Your task to perform on an android device: What's on my calendar today? Image 0: 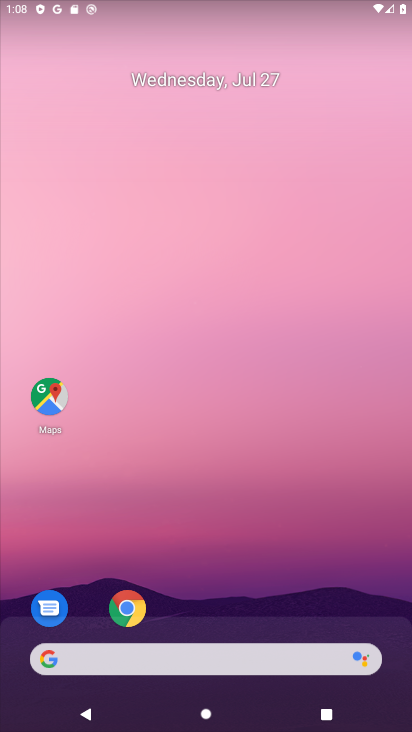
Step 0: drag from (268, 626) to (242, 166)
Your task to perform on an android device: What's on my calendar today? Image 1: 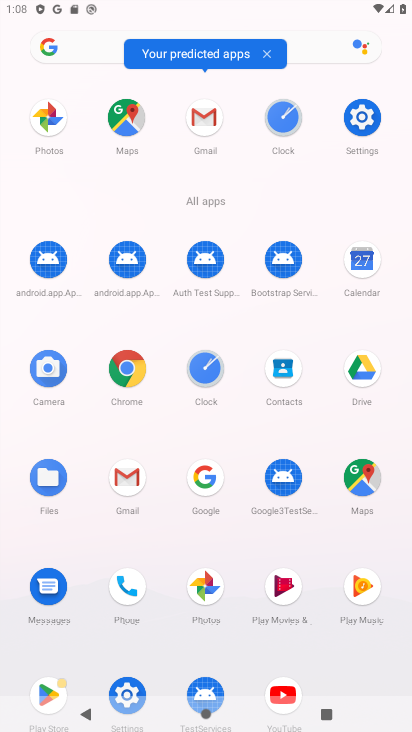
Step 1: click (364, 273)
Your task to perform on an android device: What's on my calendar today? Image 2: 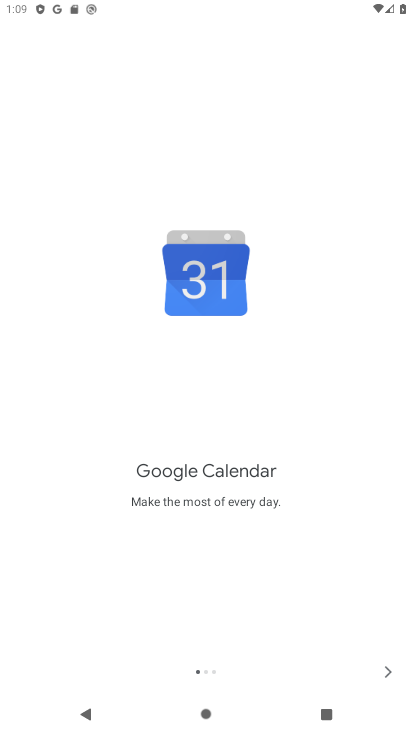
Step 2: click (378, 667)
Your task to perform on an android device: What's on my calendar today? Image 3: 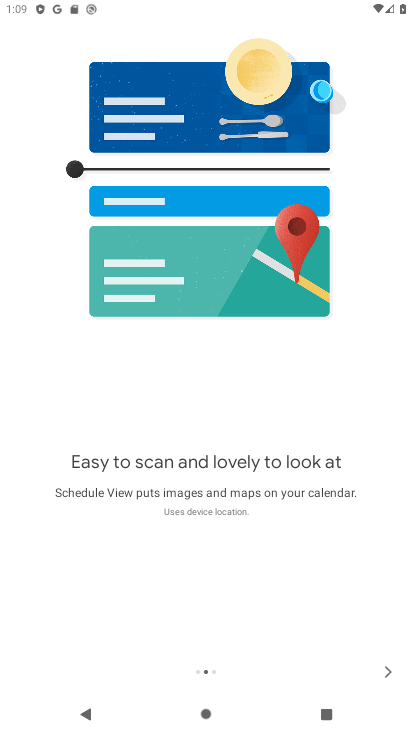
Step 3: click (378, 667)
Your task to perform on an android device: What's on my calendar today? Image 4: 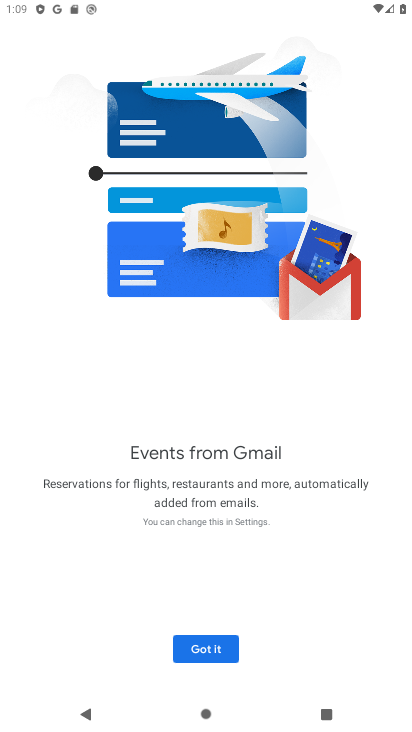
Step 4: click (188, 652)
Your task to perform on an android device: What's on my calendar today? Image 5: 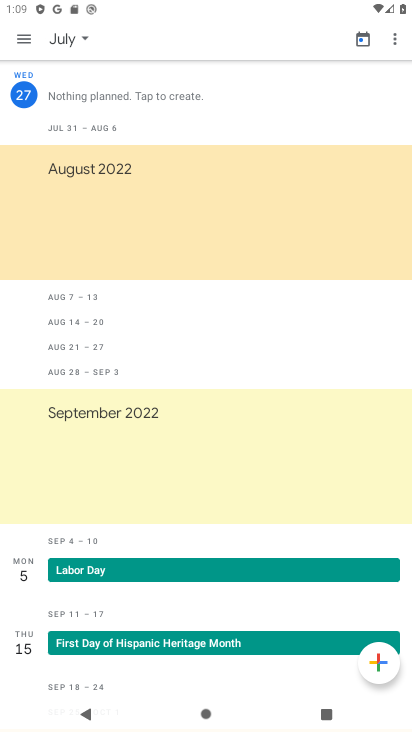
Step 5: click (18, 36)
Your task to perform on an android device: What's on my calendar today? Image 6: 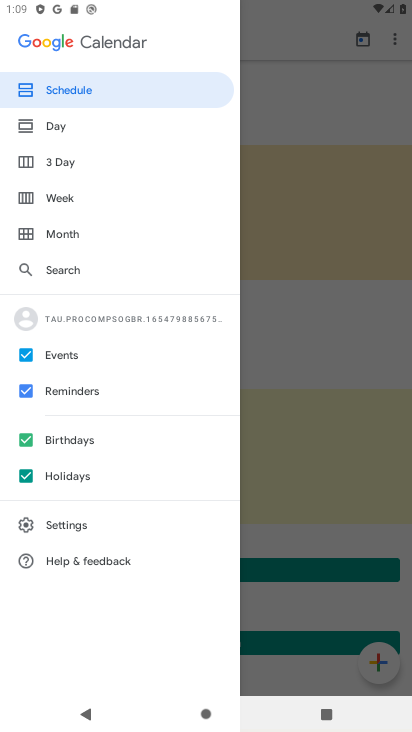
Step 6: click (62, 128)
Your task to perform on an android device: What's on my calendar today? Image 7: 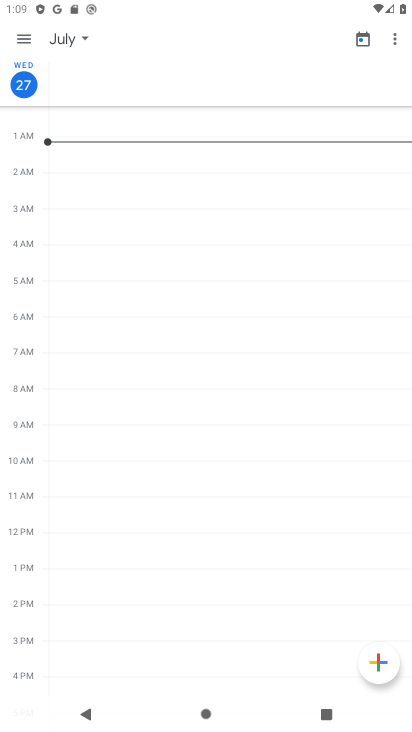
Step 7: task complete